Your task to perform on an android device: Go to wifi settings Image 0: 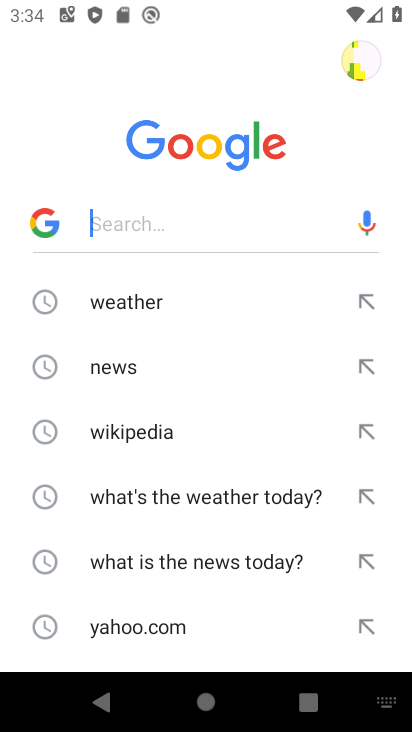
Step 0: press home button
Your task to perform on an android device: Go to wifi settings Image 1: 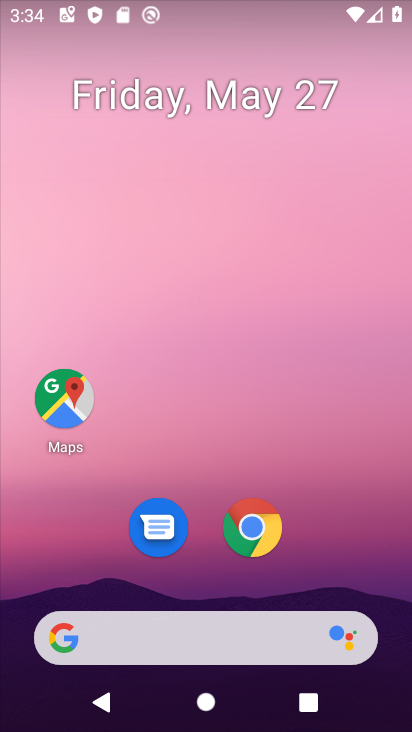
Step 1: drag from (325, 584) to (323, 322)
Your task to perform on an android device: Go to wifi settings Image 2: 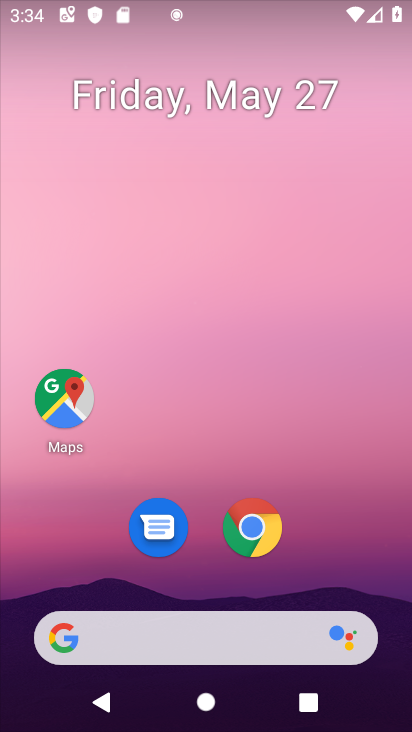
Step 2: drag from (361, 601) to (357, 326)
Your task to perform on an android device: Go to wifi settings Image 3: 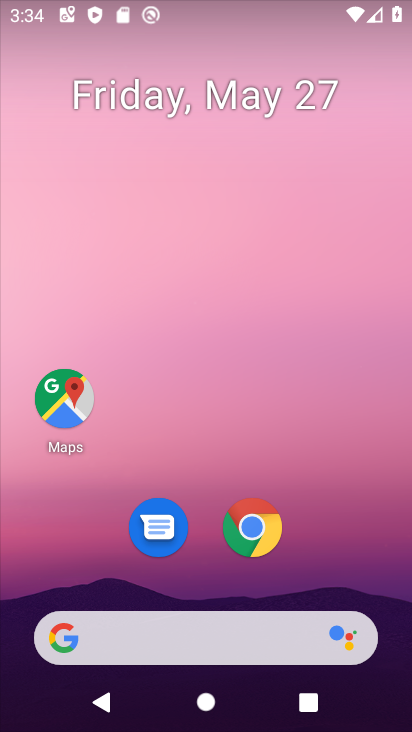
Step 3: drag from (270, 4) to (234, 719)
Your task to perform on an android device: Go to wifi settings Image 4: 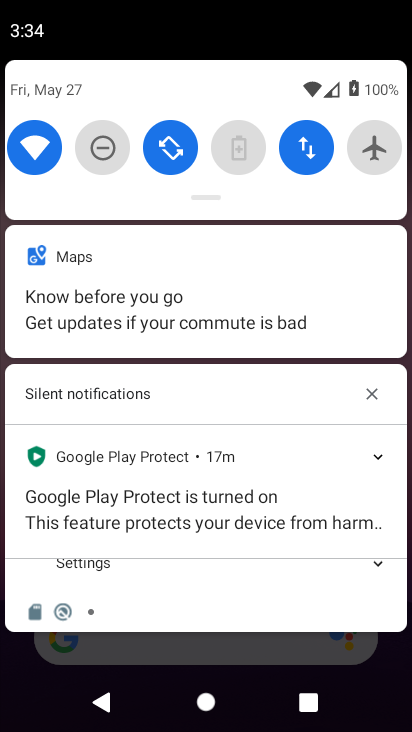
Step 4: drag from (203, 196) to (223, 583)
Your task to perform on an android device: Go to wifi settings Image 5: 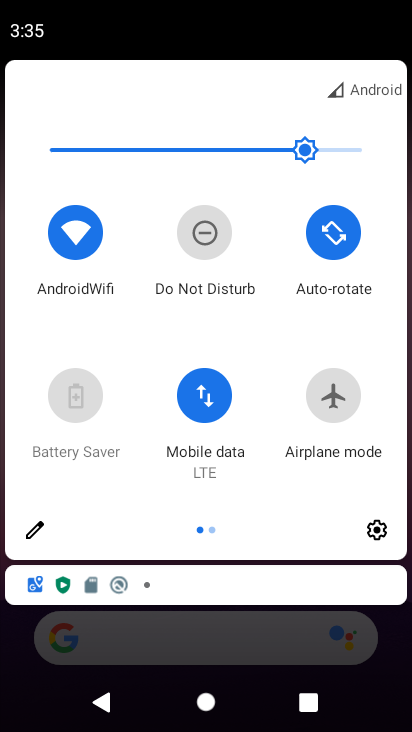
Step 5: click (93, 249)
Your task to perform on an android device: Go to wifi settings Image 6: 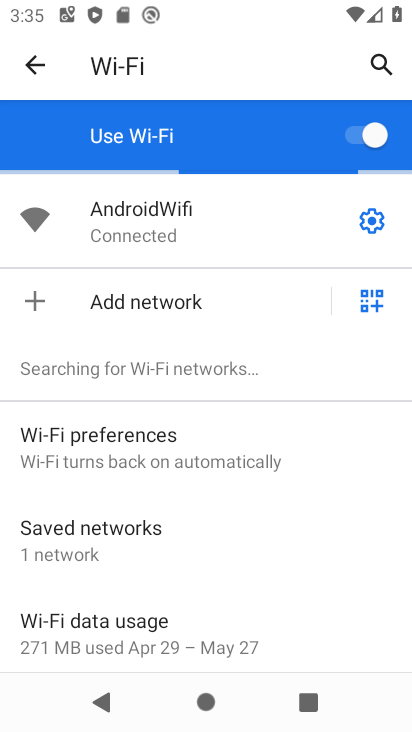
Step 6: task complete